Your task to perform on an android device: Go to Android settings Image 0: 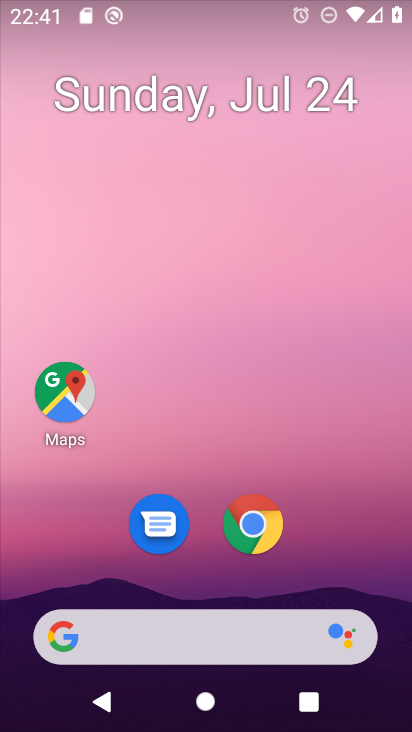
Step 0: press home button
Your task to perform on an android device: Go to Android settings Image 1: 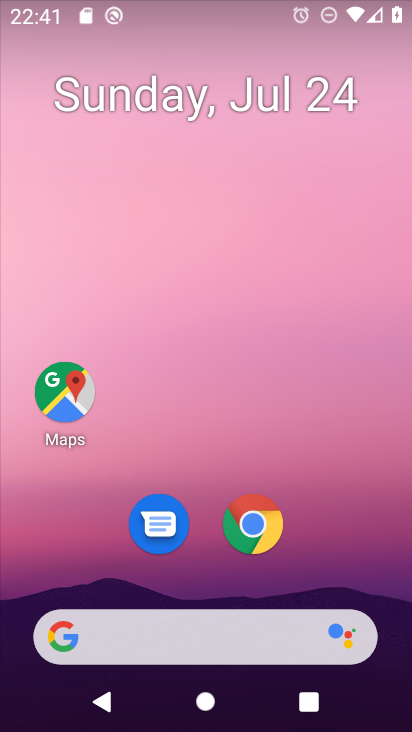
Step 1: drag from (169, 631) to (363, 61)
Your task to perform on an android device: Go to Android settings Image 2: 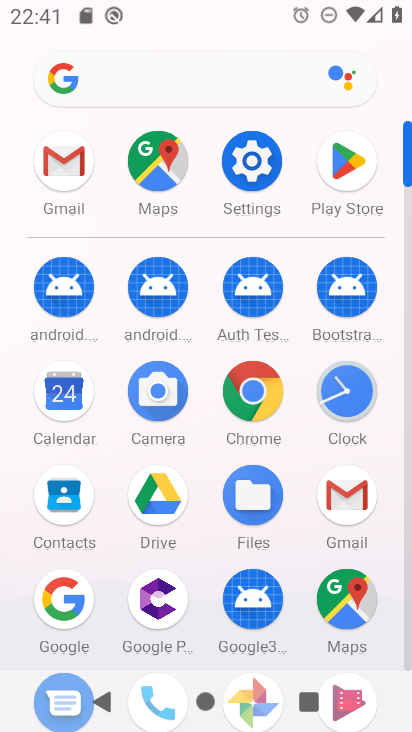
Step 2: click (253, 181)
Your task to perform on an android device: Go to Android settings Image 3: 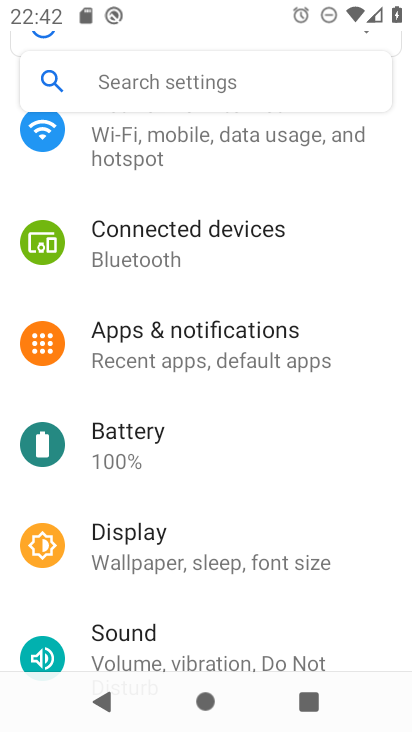
Step 3: task complete